Your task to perform on an android device: allow cookies in the chrome app Image 0: 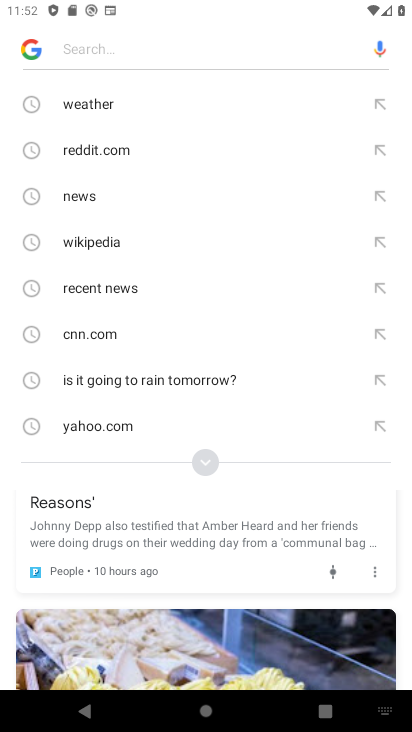
Step 0: press back button
Your task to perform on an android device: allow cookies in the chrome app Image 1: 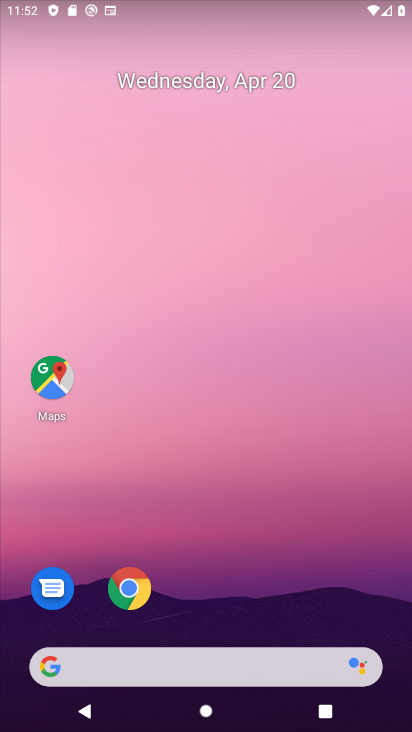
Step 1: click (135, 599)
Your task to perform on an android device: allow cookies in the chrome app Image 2: 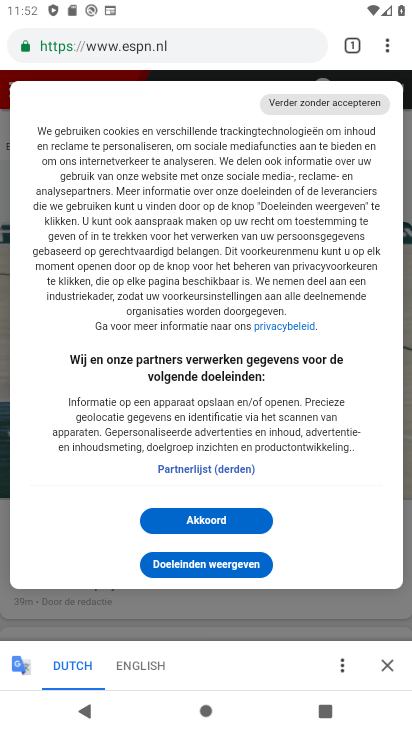
Step 2: click (387, 41)
Your task to perform on an android device: allow cookies in the chrome app Image 3: 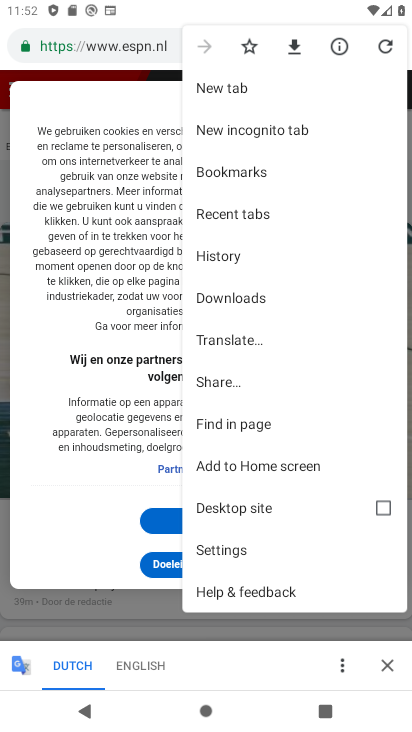
Step 3: click (248, 542)
Your task to perform on an android device: allow cookies in the chrome app Image 4: 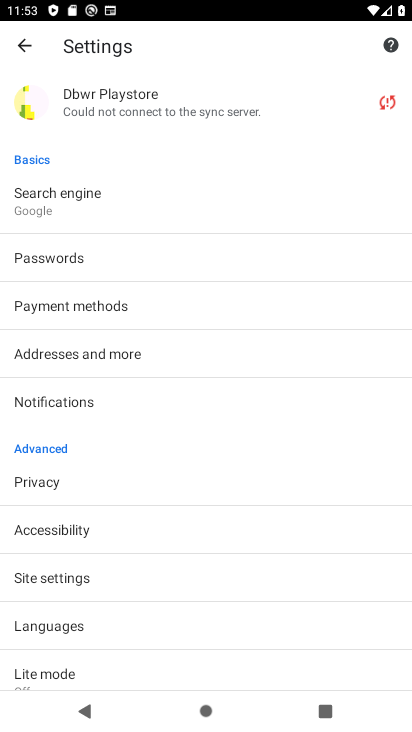
Step 4: click (128, 579)
Your task to perform on an android device: allow cookies in the chrome app Image 5: 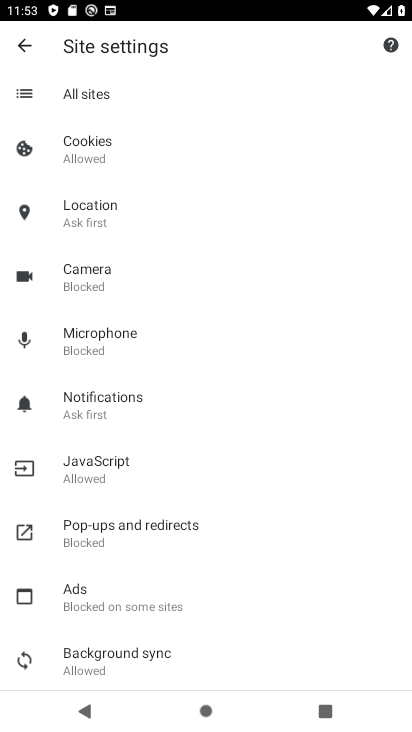
Step 5: task complete